Your task to perform on an android device: see tabs open on other devices in the chrome app Image 0: 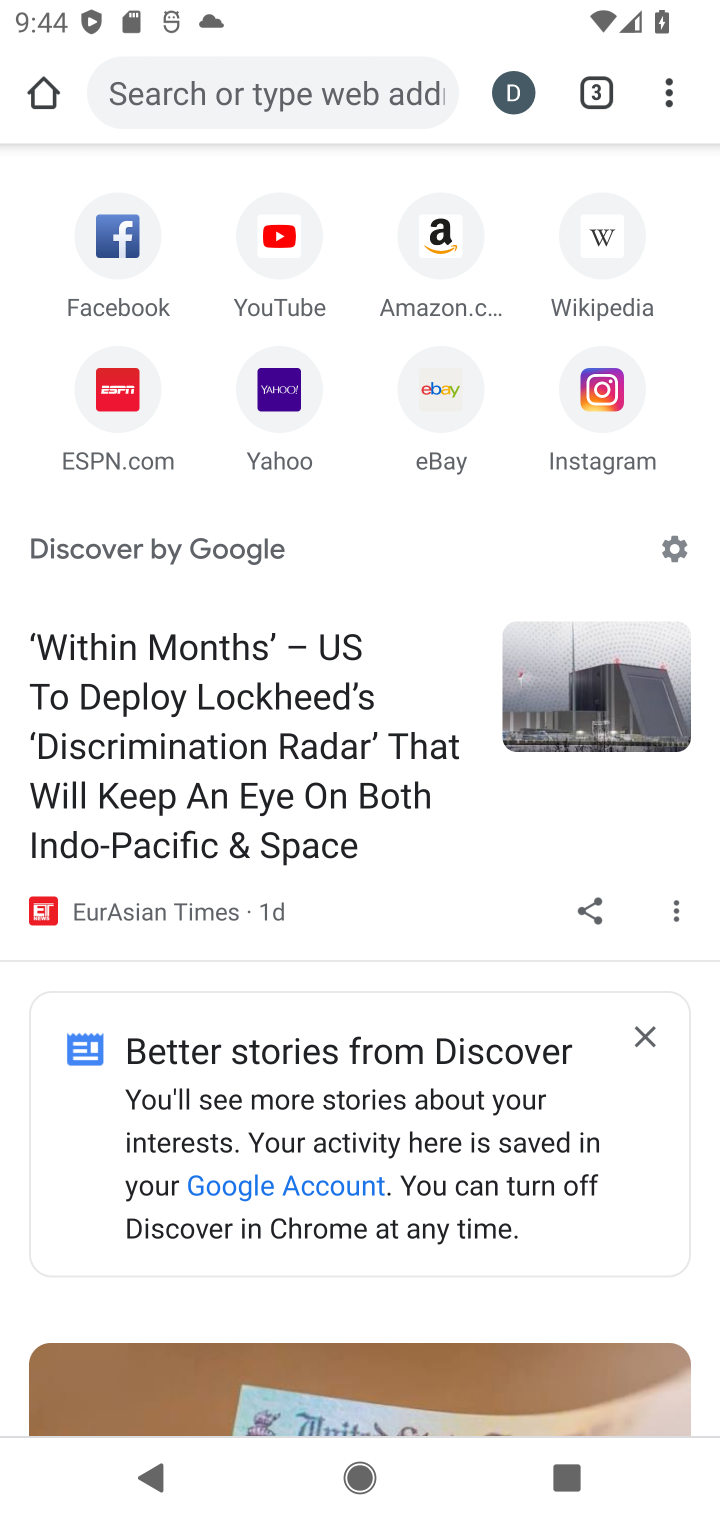
Step 0: click (671, 86)
Your task to perform on an android device: see tabs open on other devices in the chrome app Image 1: 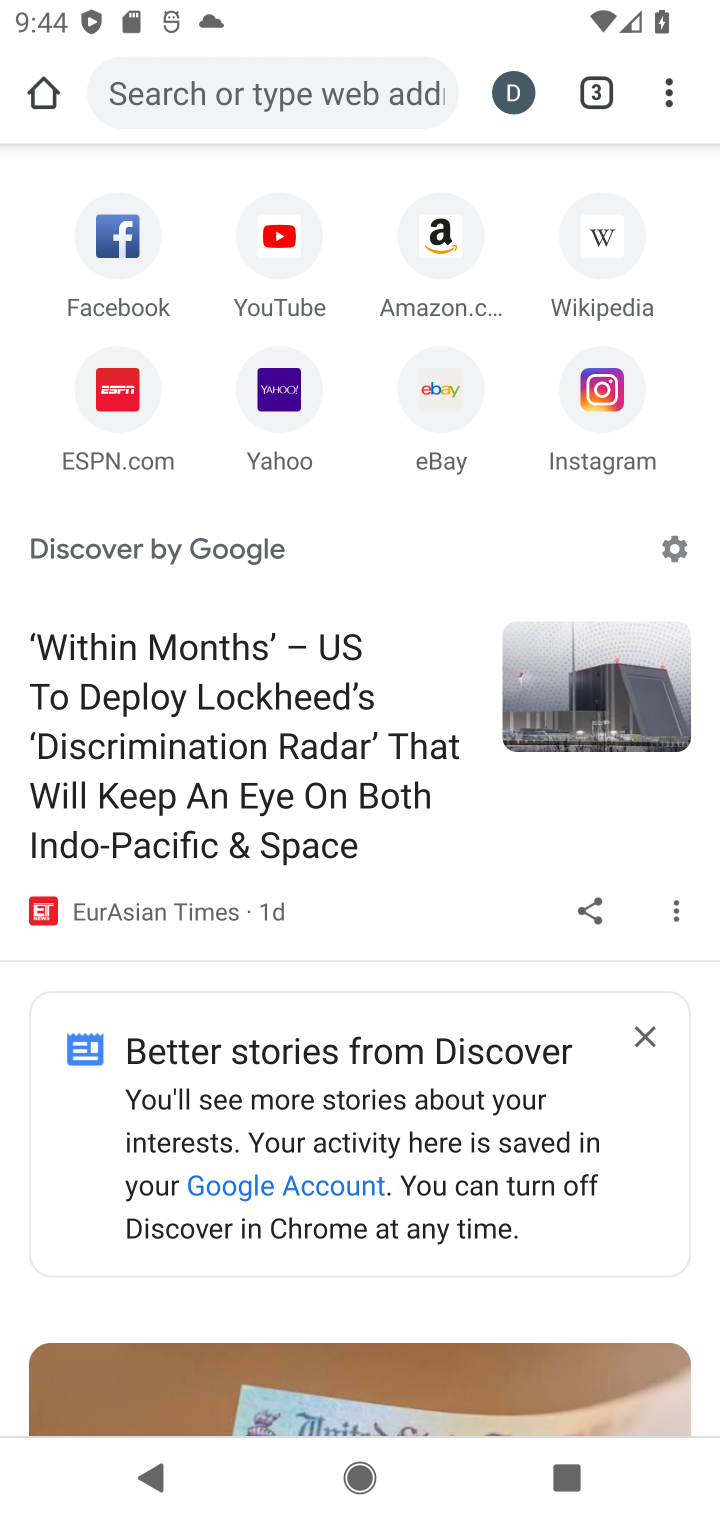
Step 1: click (663, 94)
Your task to perform on an android device: see tabs open on other devices in the chrome app Image 2: 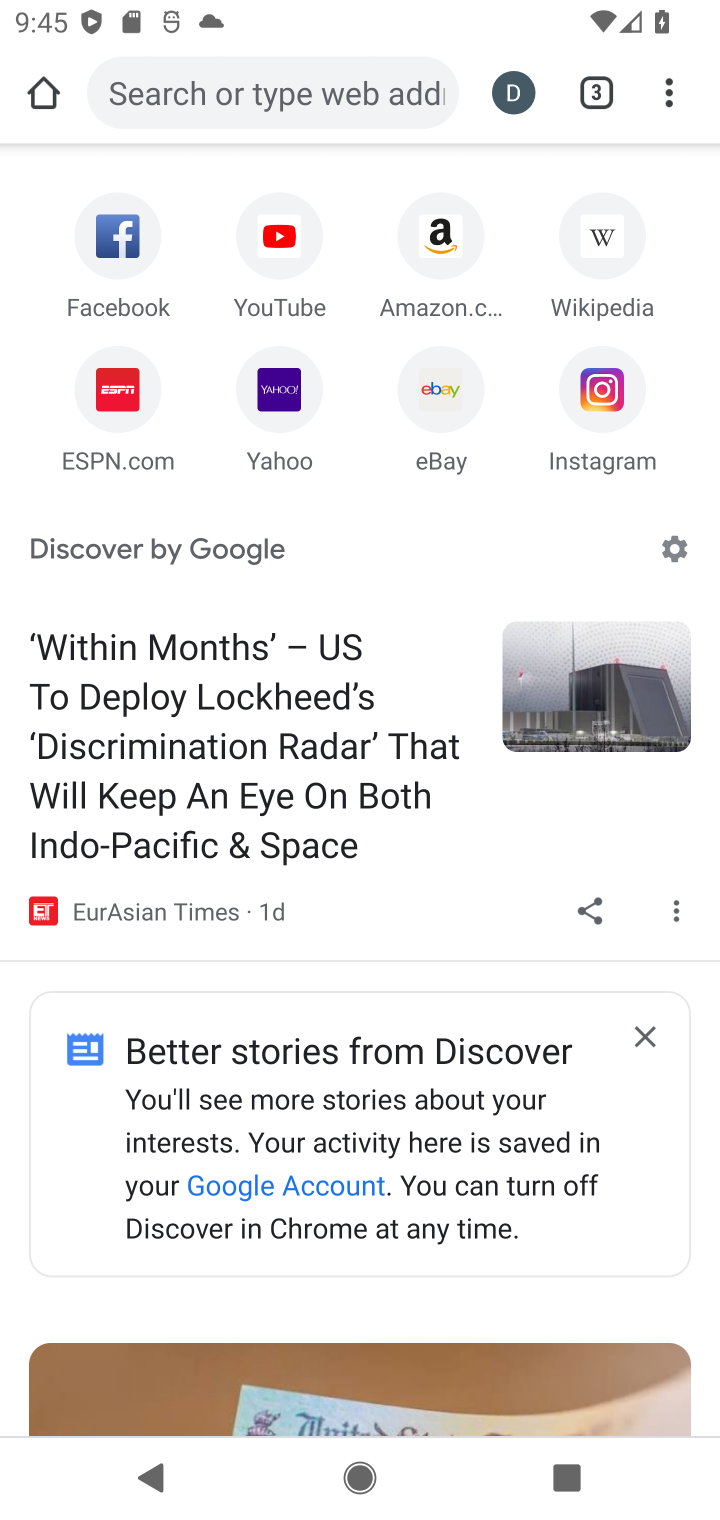
Step 2: click (663, 81)
Your task to perform on an android device: see tabs open on other devices in the chrome app Image 3: 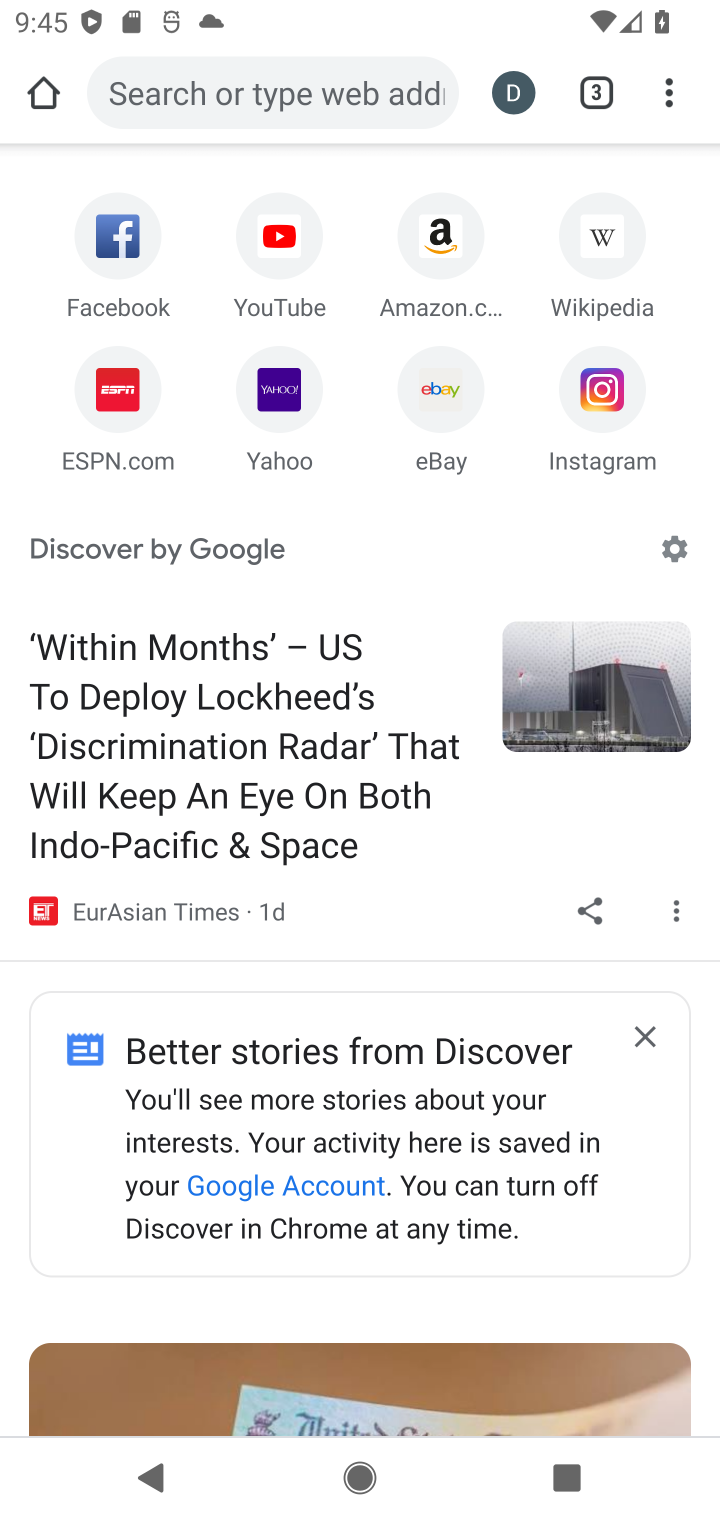
Step 3: click (663, 79)
Your task to perform on an android device: see tabs open on other devices in the chrome app Image 4: 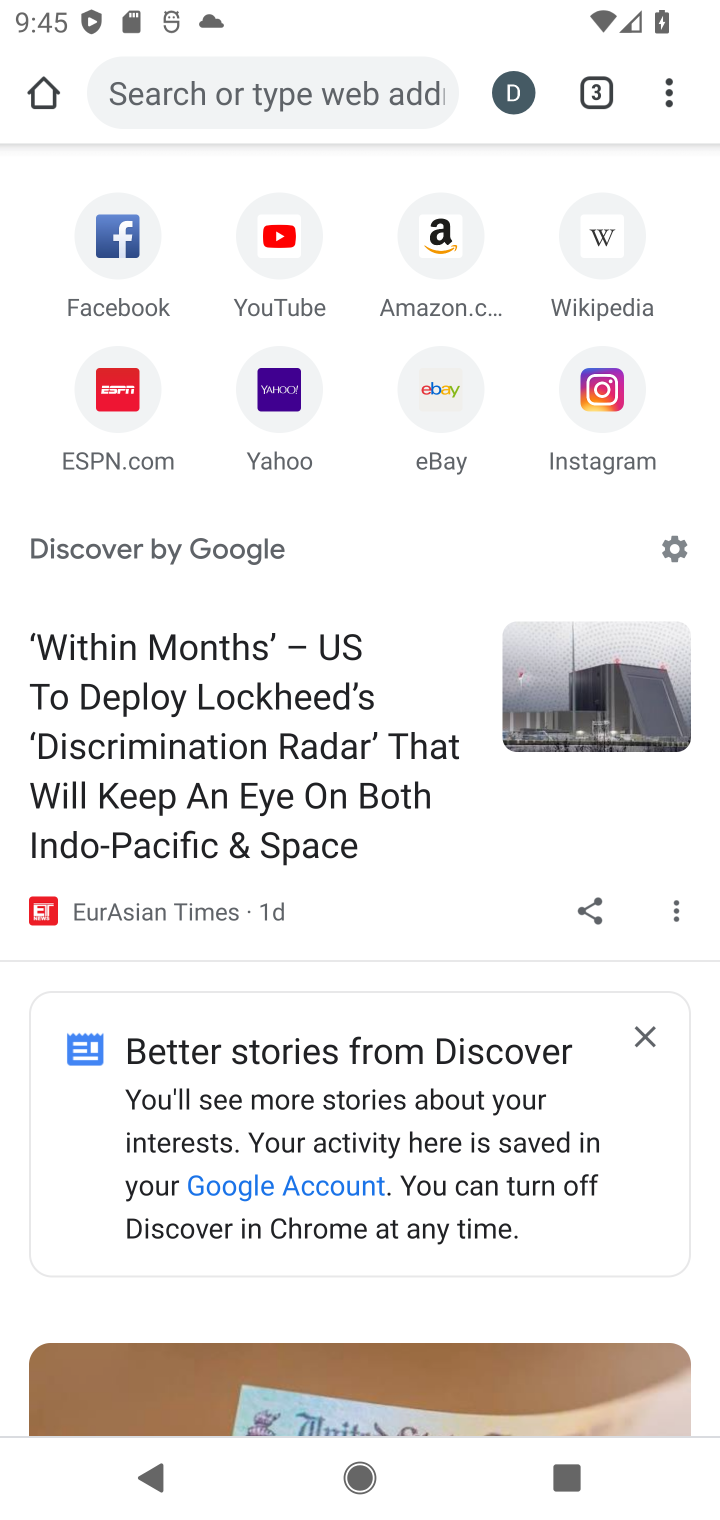
Step 4: click (663, 104)
Your task to perform on an android device: see tabs open on other devices in the chrome app Image 5: 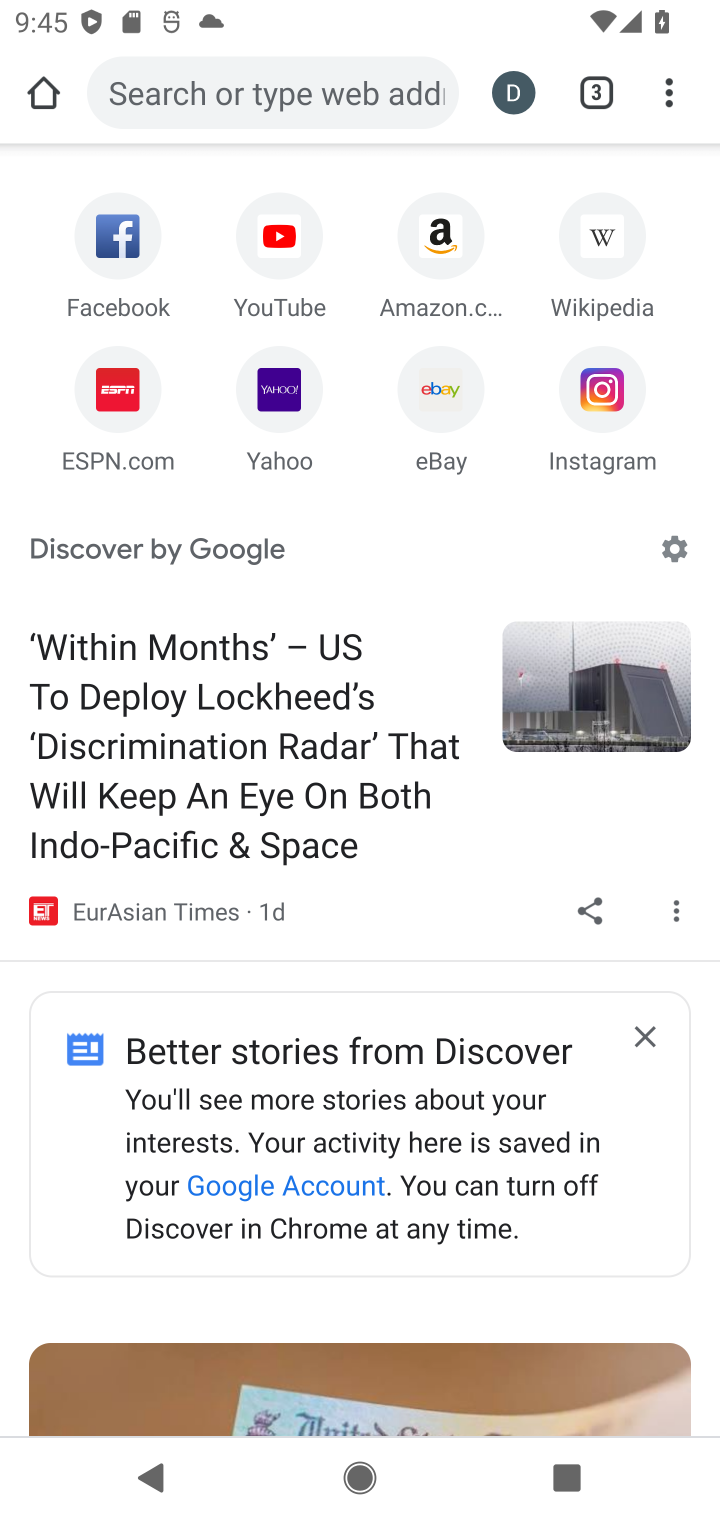
Step 5: click (664, 87)
Your task to perform on an android device: see tabs open on other devices in the chrome app Image 6: 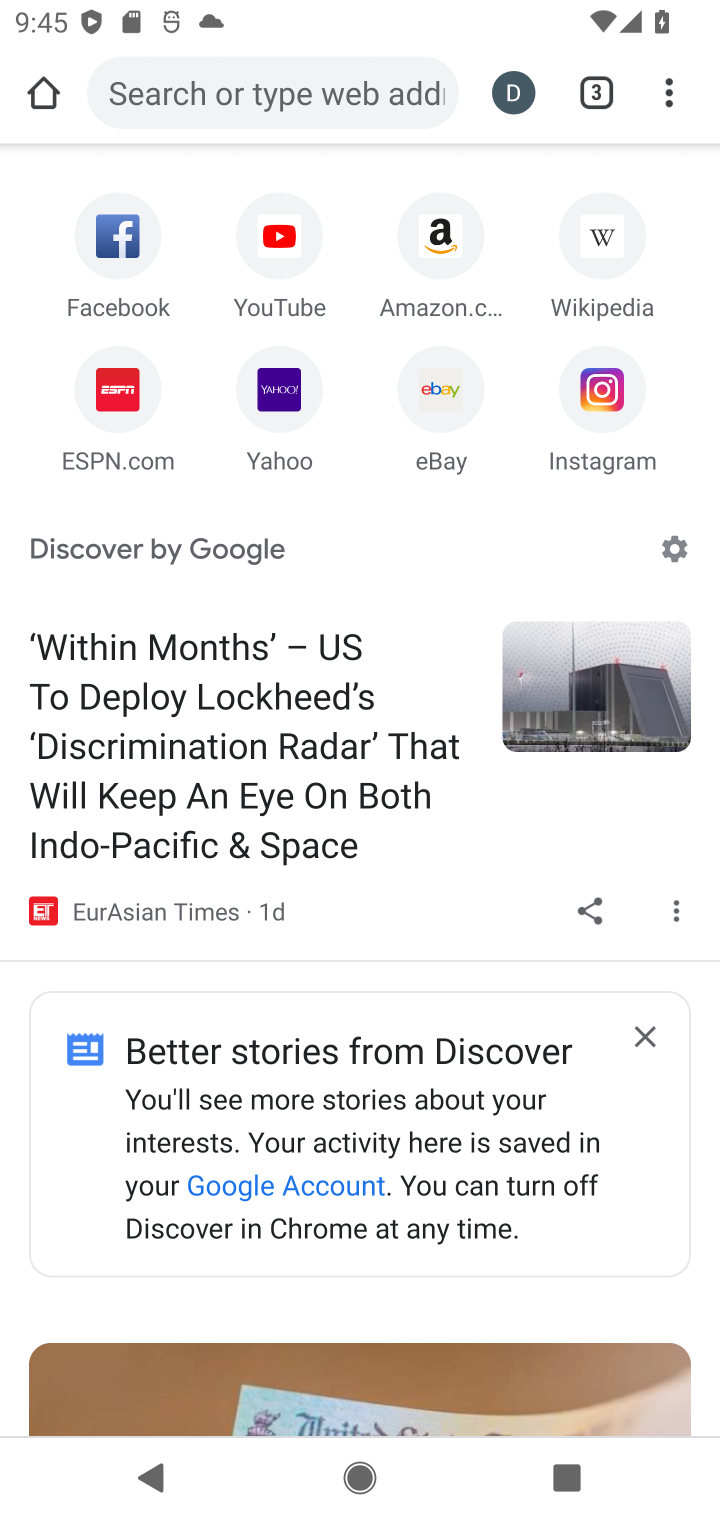
Step 6: click (679, 102)
Your task to perform on an android device: see tabs open on other devices in the chrome app Image 7: 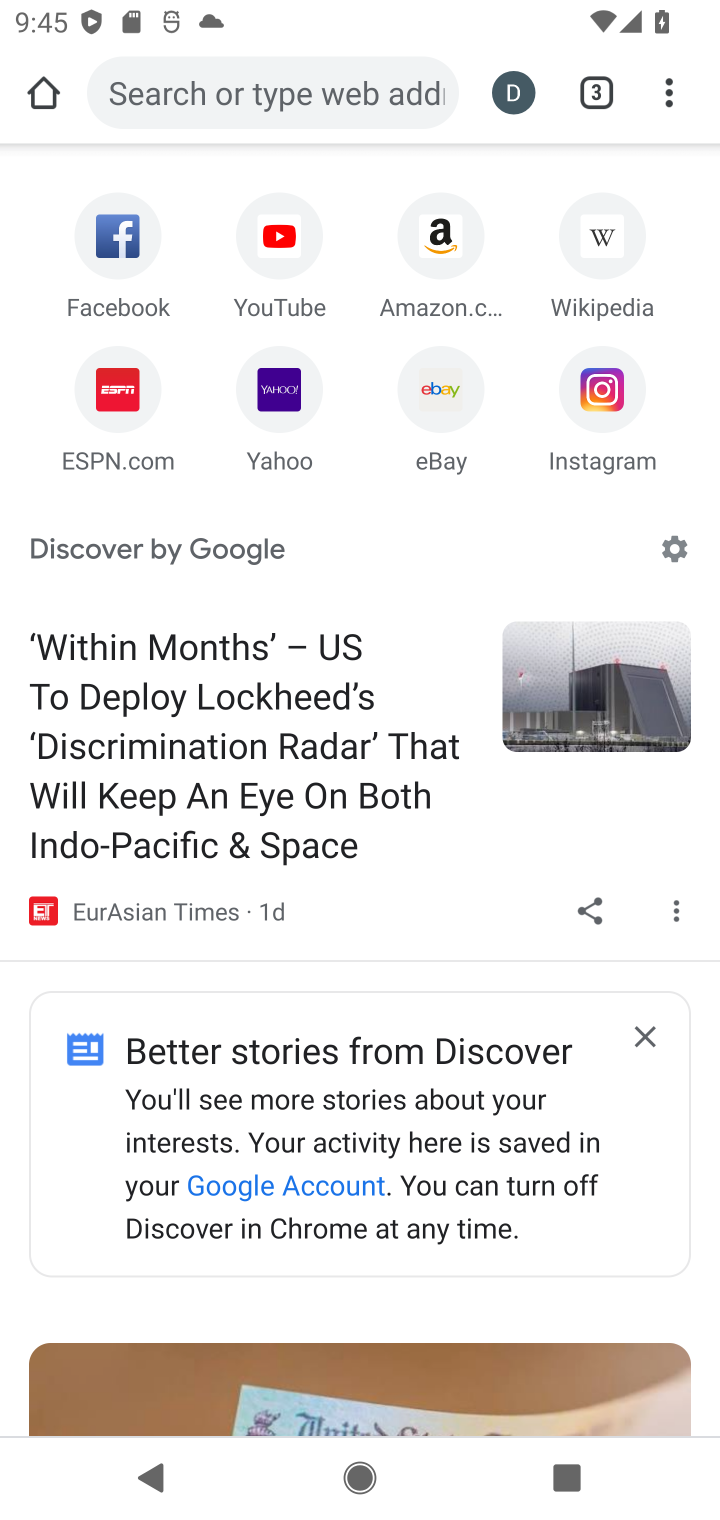
Step 7: click (679, 102)
Your task to perform on an android device: see tabs open on other devices in the chrome app Image 8: 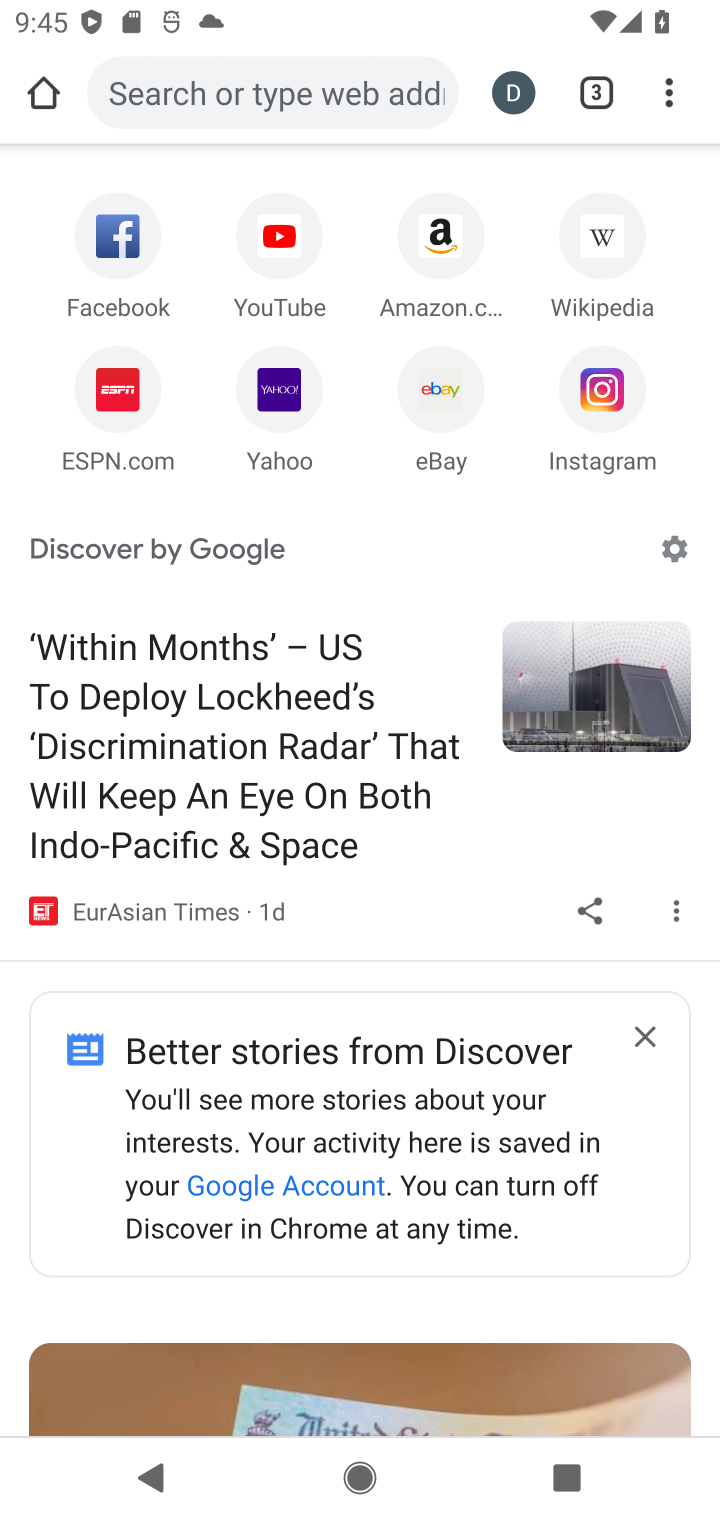
Step 8: click (657, 82)
Your task to perform on an android device: see tabs open on other devices in the chrome app Image 9: 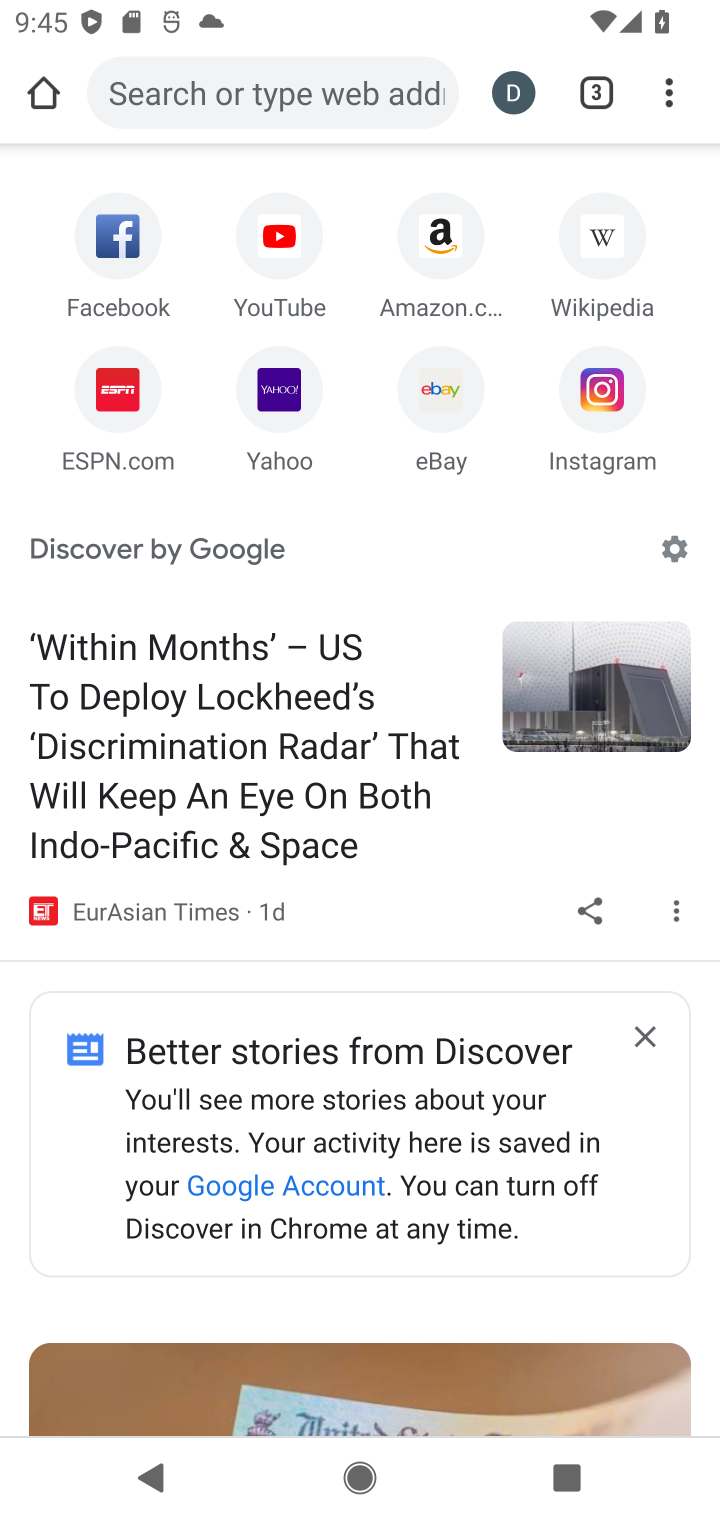
Step 9: click (660, 86)
Your task to perform on an android device: see tabs open on other devices in the chrome app Image 10: 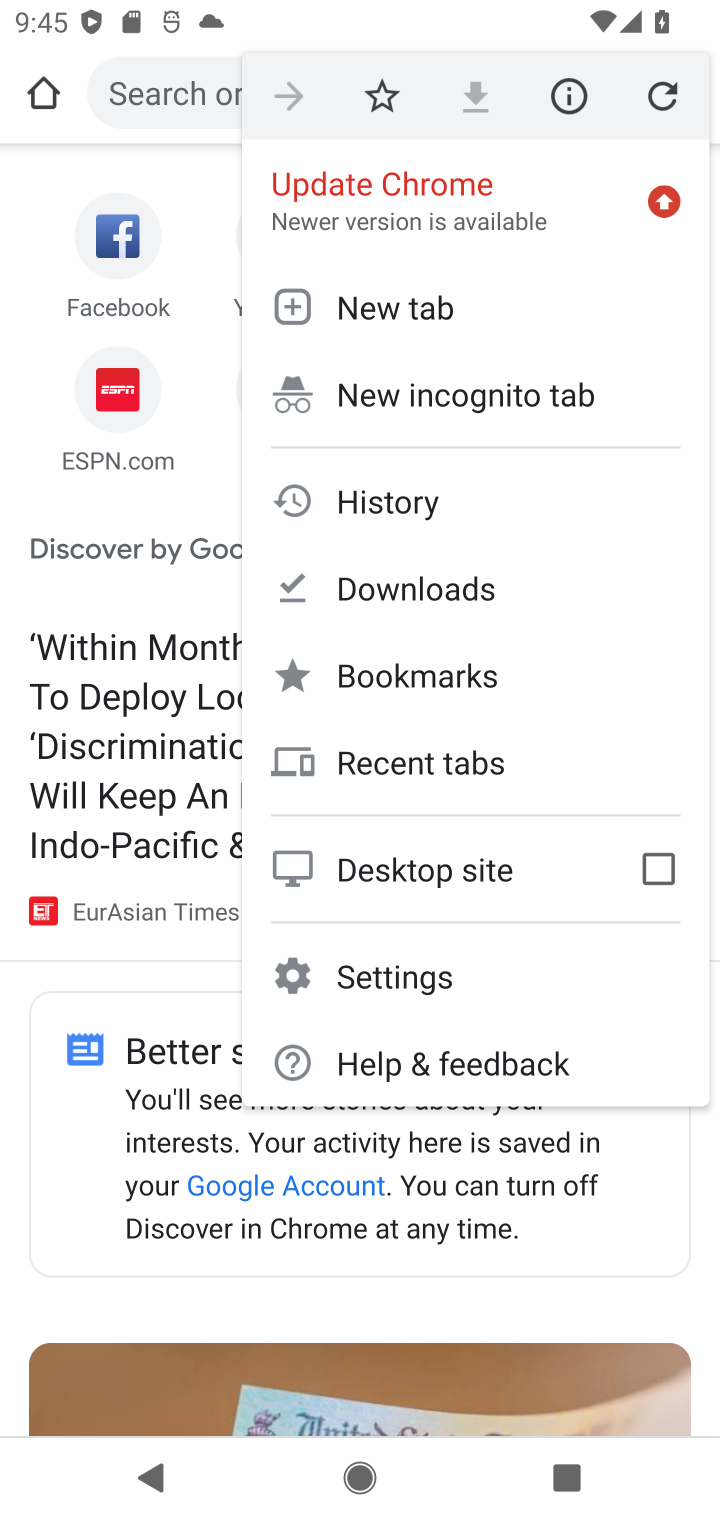
Step 10: click (408, 495)
Your task to perform on an android device: see tabs open on other devices in the chrome app Image 11: 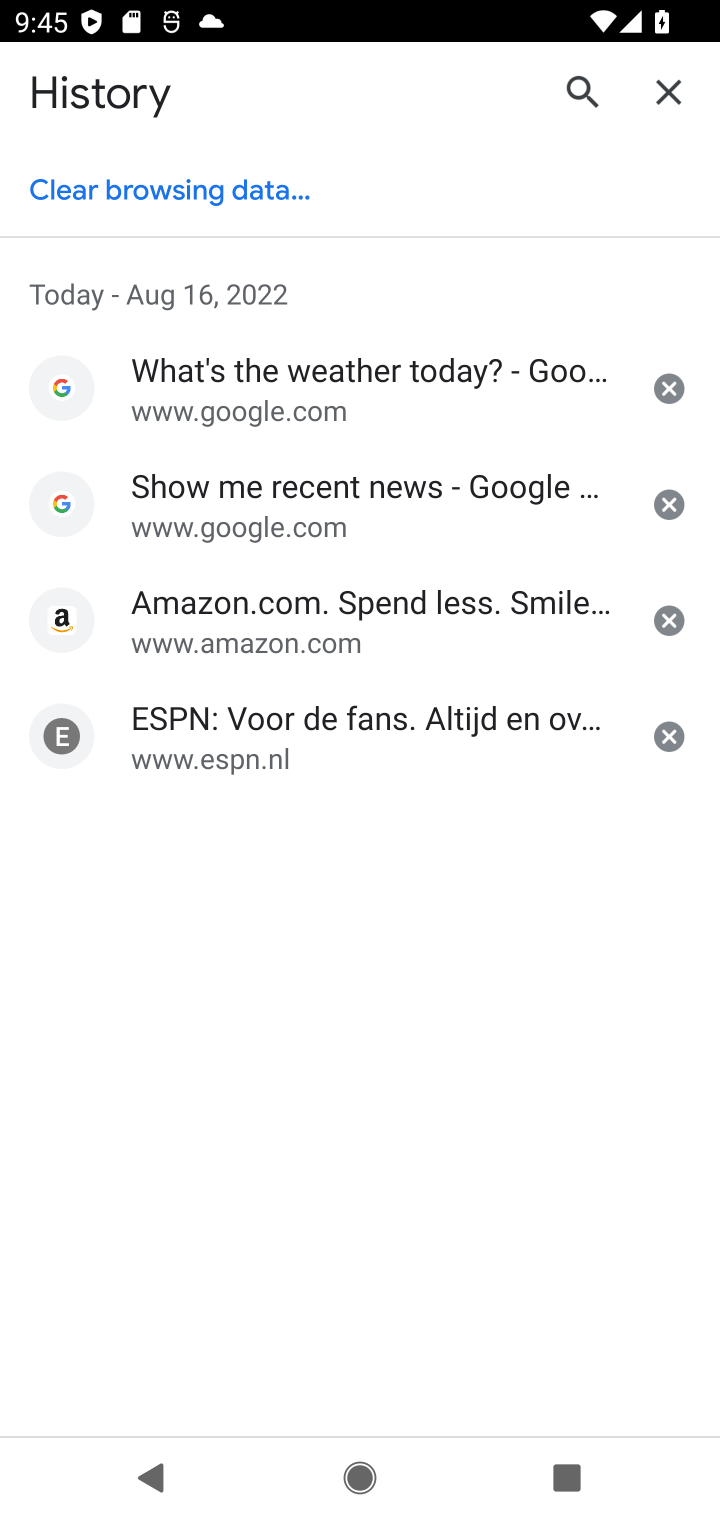
Step 11: task complete